Your task to perform on an android device: turn pop-ups off in chrome Image 0: 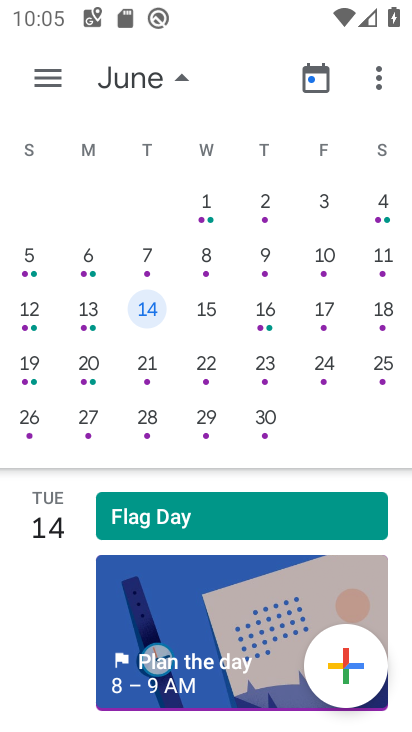
Step 0: press home button
Your task to perform on an android device: turn pop-ups off in chrome Image 1: 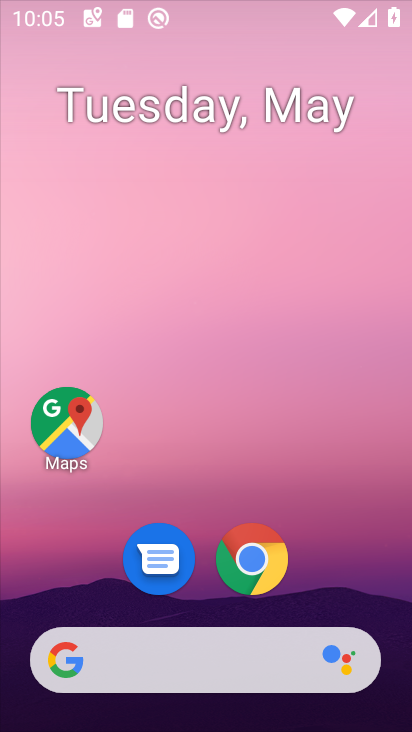
Step 1: drag from (396, 664) to (290, 38)
Your task to perform on an android device: turn pop-ups off in chrome Image 2: 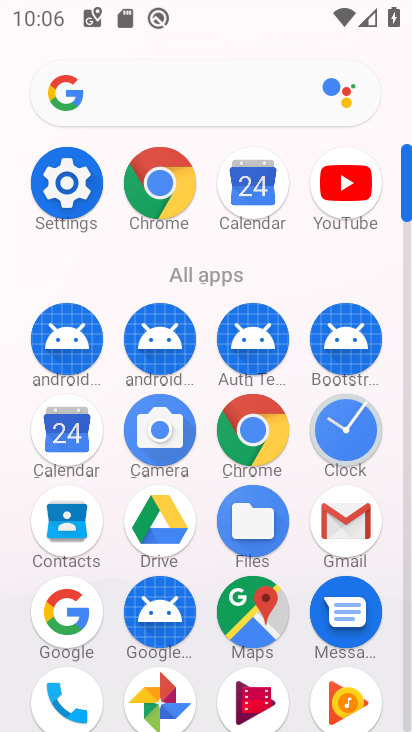
Step 2: click (268, 433)
Your task to perform on an android device: turn pop-ups off in chrome Image 3: 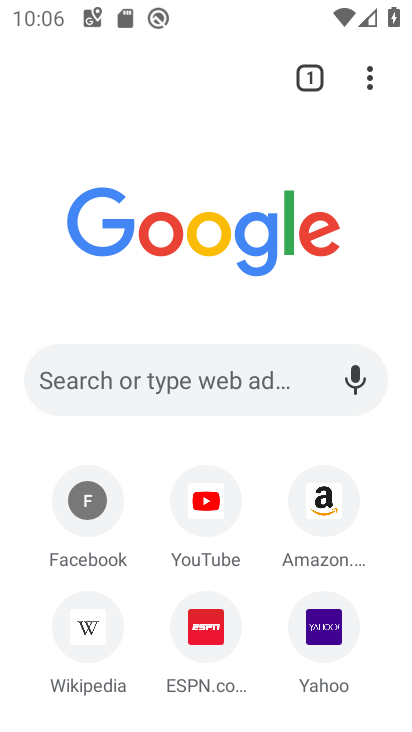
Step 3: click (372, 76)
Your task to perform on an android device: turn pop-ups off in chrome Image 4: 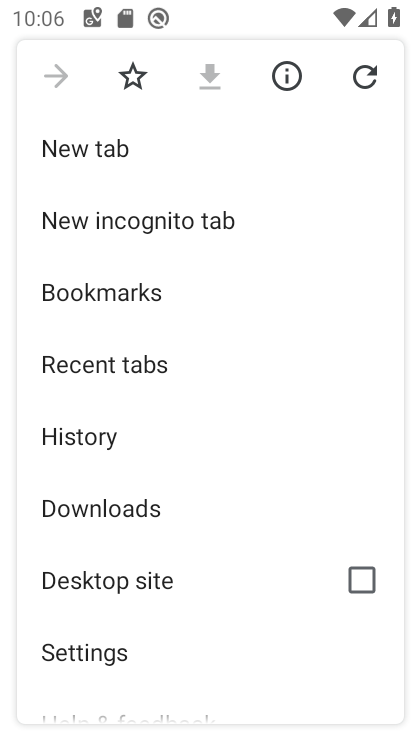
Step 4: click (161, 663)
Your task to perform on an android device: turn pop-ups off in chrome Image 5: 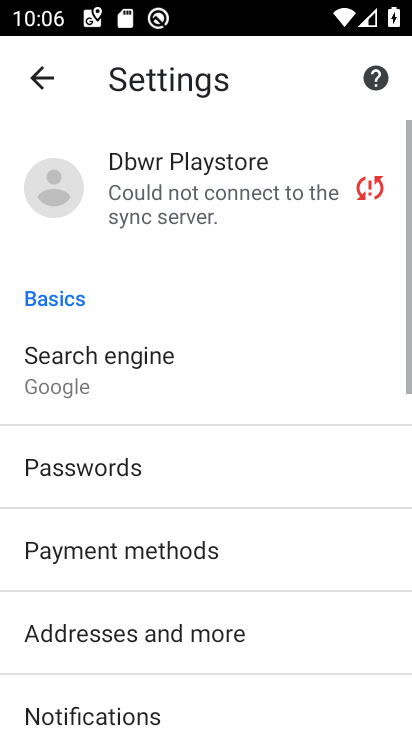
Step 5: drag from (161, 663) to (209, 240)
Your task to perform on an android device: turn pop-ups off in chrome Image 6: 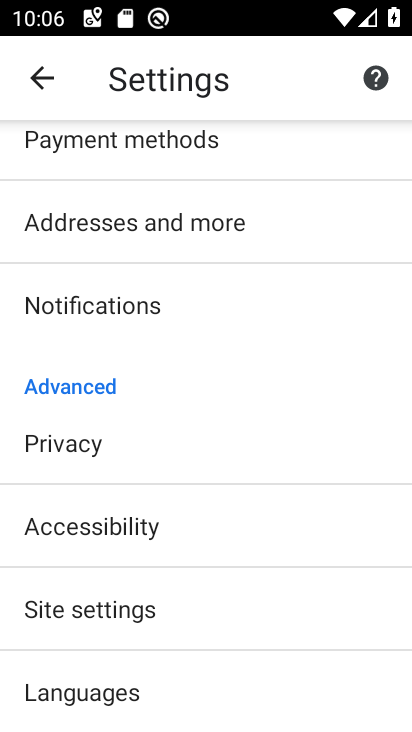
Step 6: click (157, 587)
Your task to perform on an android device: turn pop-ups off in chrome Image 7: 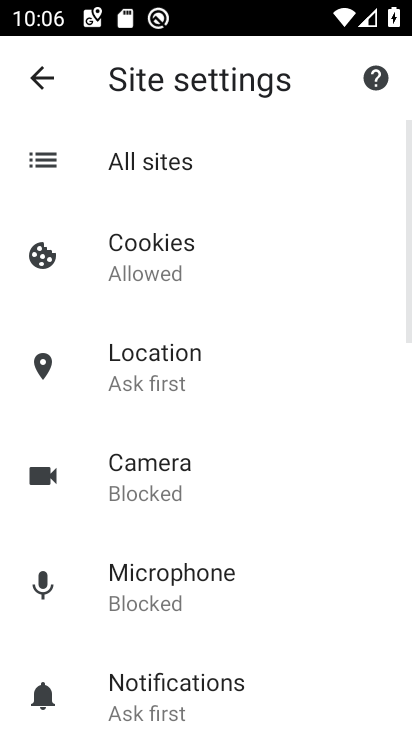
Step 7: drag from (200, 666) to (235, 169)
Your task to perform on an android device: turn pop-ups off in chrome Image 8: 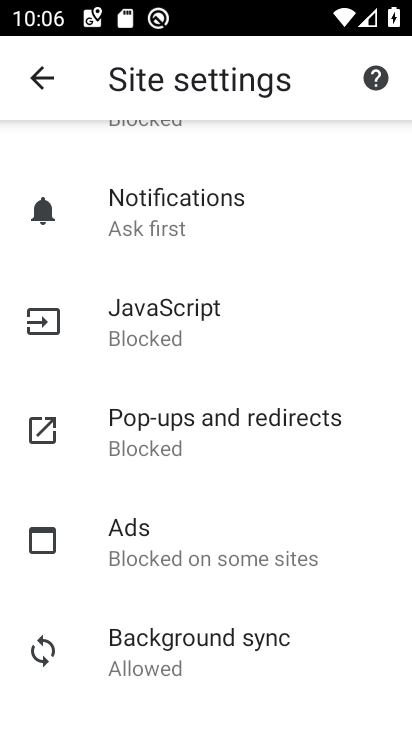
Step 8: click (223, 458)
Your task to perform on an android device: turn pop-ups off in chrome Image 9: 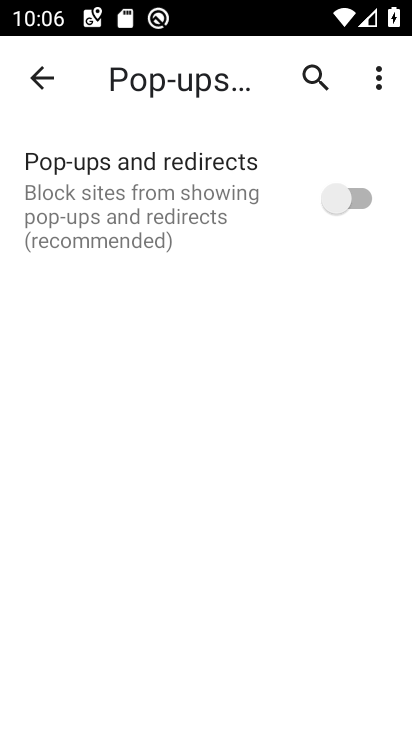
Step 9: task complete